Your task to perform on an android device: change timer sound Image 0: 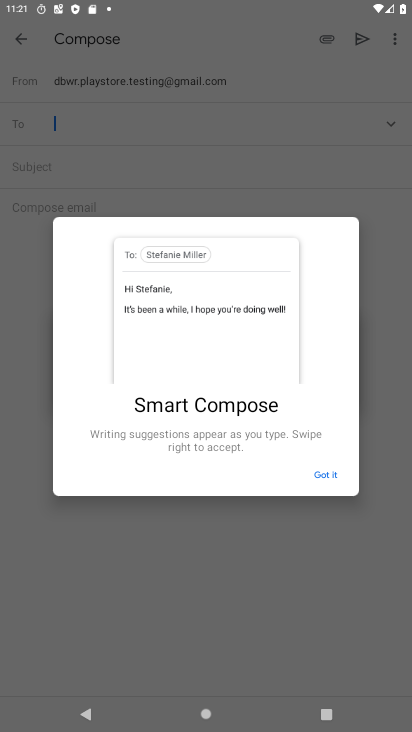
Step 0: press home button
Your task to perform on an android device: change timer sound Image 1: 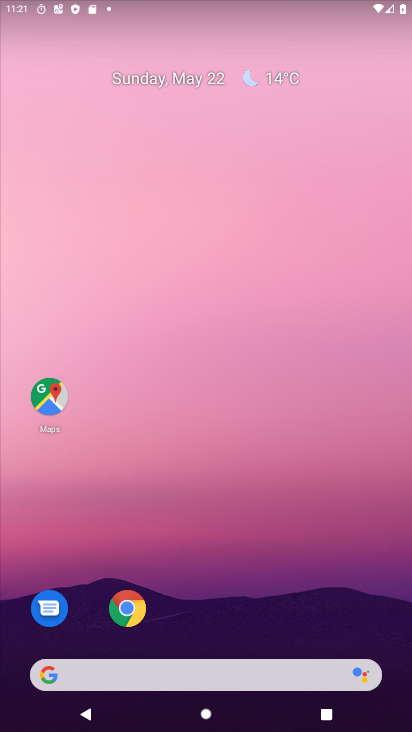
Step 1: drag from (234, 725) to (236, 104)
Your task to perform on an android device: change timer sound Image 2: 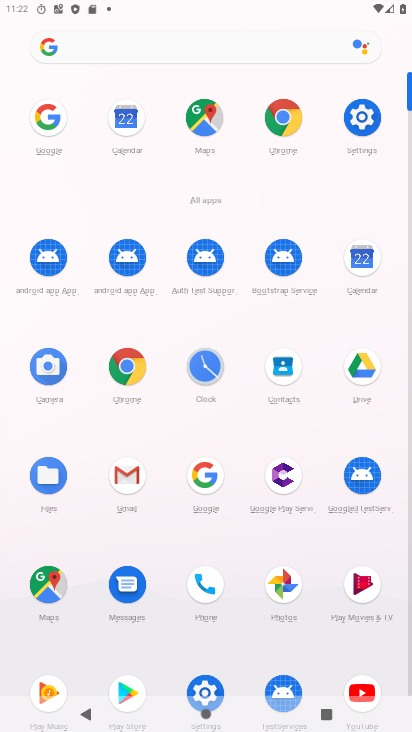
Step 2: click (211, 365)
Your task to perform on an android device: change timer sound Image 3: 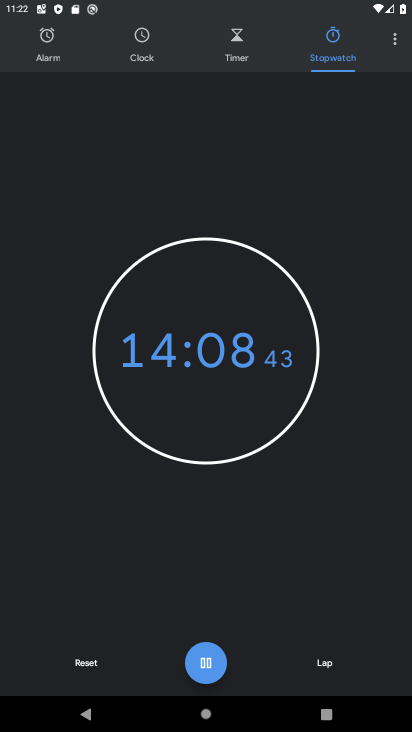
Step 3: click (398, 40)
Your task to perform on an android device: change timer sound Image 4: 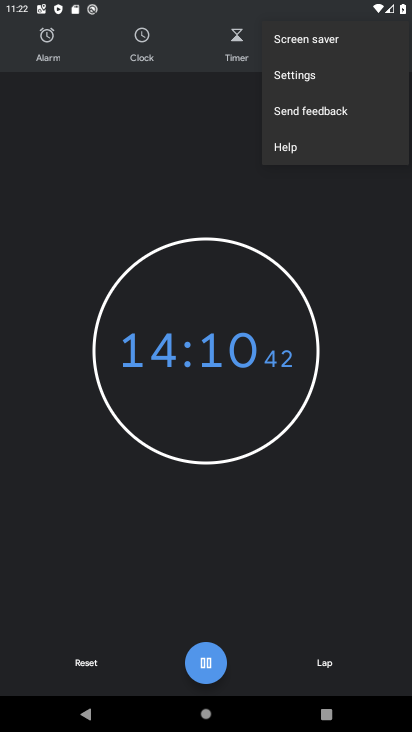
Step 4: click (294, 73)
Your task to perform on an android device: change timer sound Image 5: 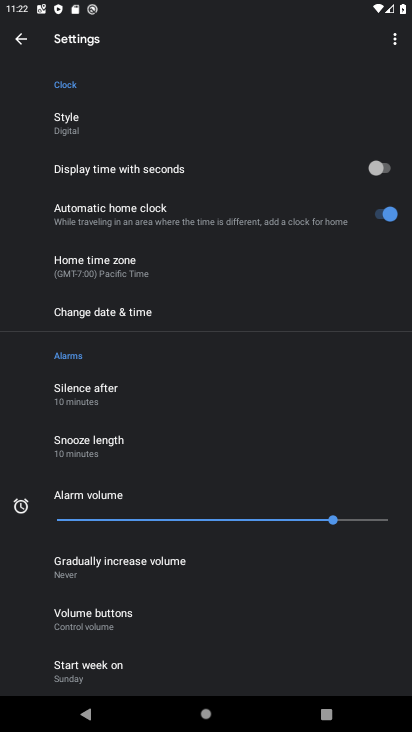
Step 5: drag from (88, 640) to (96, 352)
Your task to perform on an android device: change timer sound Image 6: 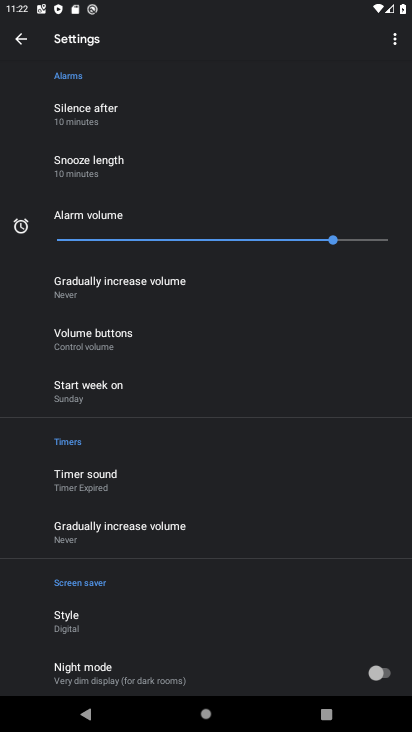
Step 6: click (94, 476)
Your task to perform on an android device: change timer sound Image 7: 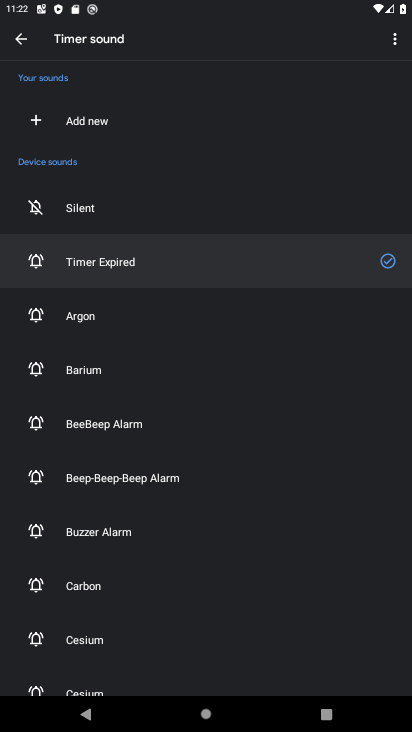
Step 7: click (85, 423)
Your task to perform on an android device: change timer sound Image 8: 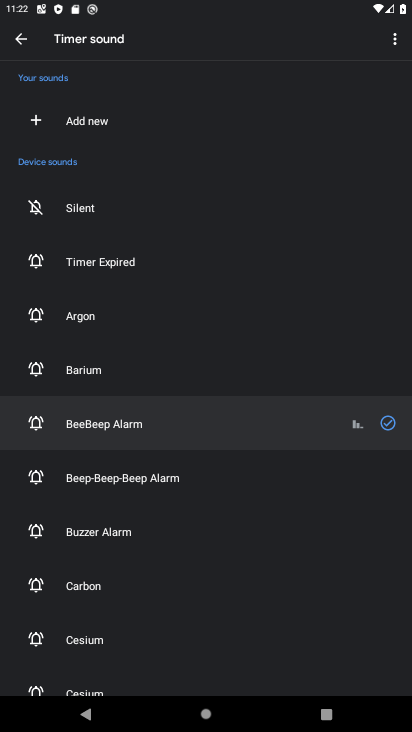
Step 8: task complete